Your task to perform on an android device: turn off smart reply in the gmail app Image 0: 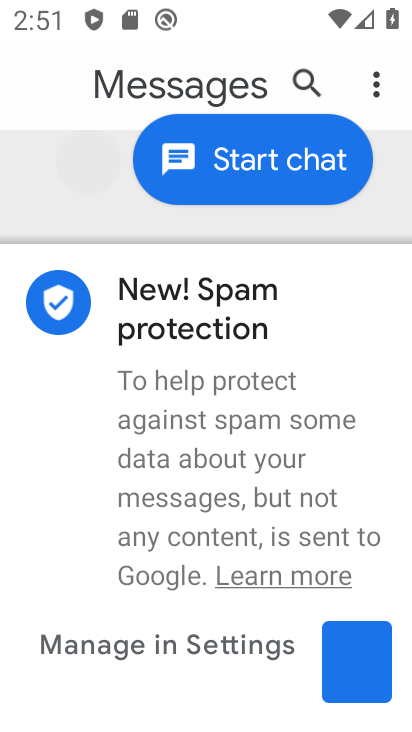
Step 0: press home button
Your task to perform on an android device: turn off smart reply in the gmail app Image 1: 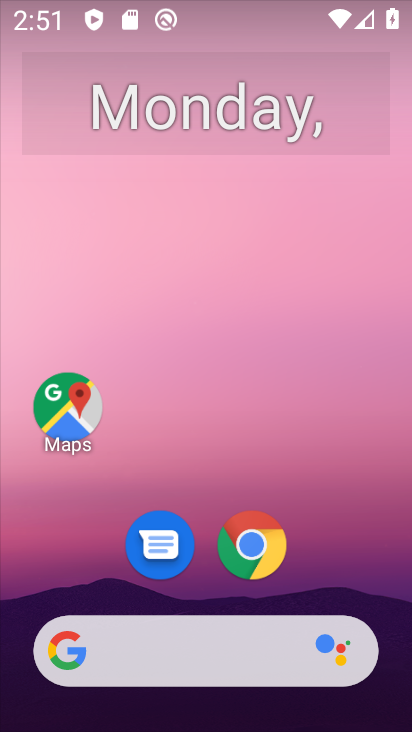
Step 1: drag from (179, 588) to (259, 54)
Your task to perform on an android device: turn off smart reply in the gmail app Image 2: 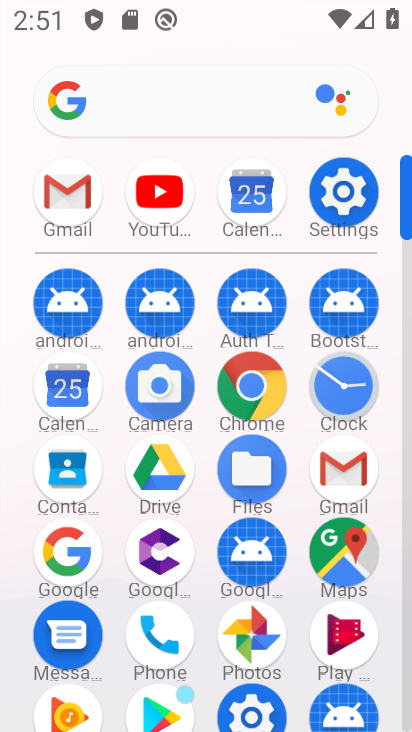
Step 2: click (343, 459)
Your task to perform on an android device: turn off smart reply in the gmail app Image 3: 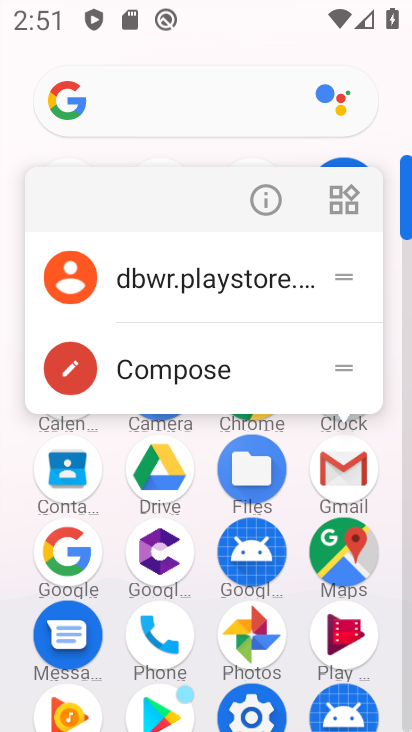
Step 3: click (353, 477)
Your task to perform on an android device: turn off smart reply in the gmail app Image 4: 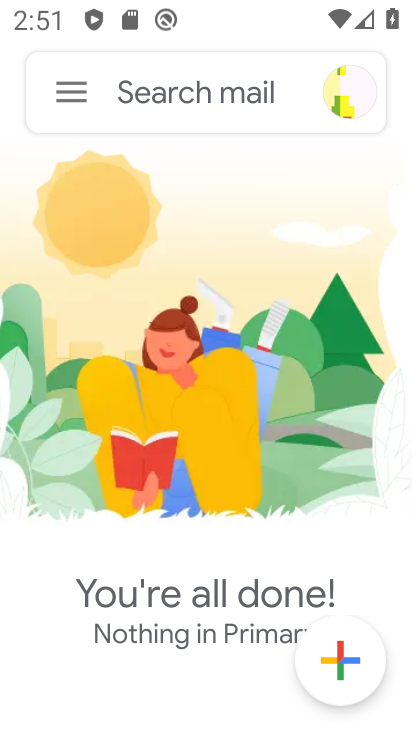
Step 4: click (76, 83)
Your task to perform on an android device: turn off smart reply in the gmail app Image 5: 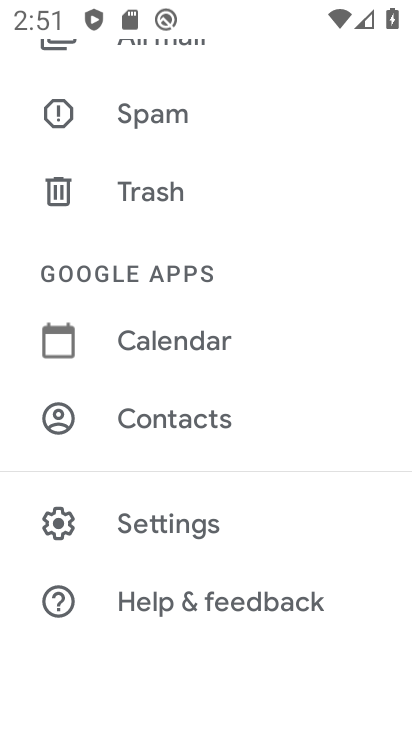
Step 5: click (172, 520)
Your task to perform on an android device: turn off smart reply in the gmail app Image 6: 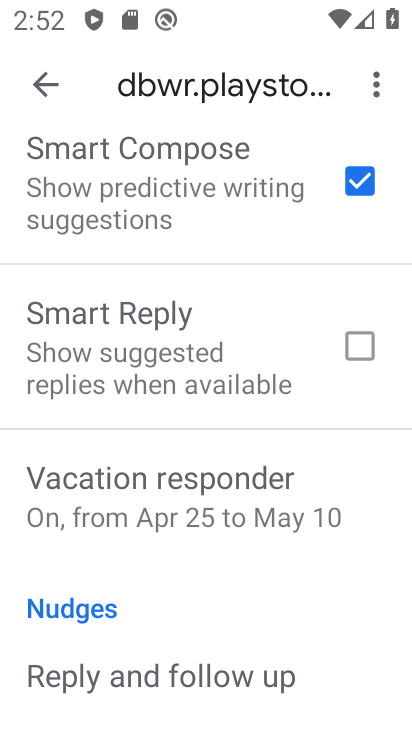
Step 6: task complete